Your task to perform on an android device: Go to wifi settings Image 0: 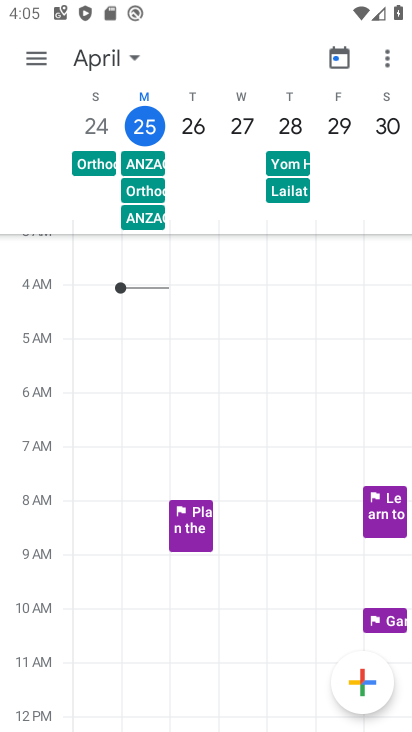
Step 0: press home button
Your task to perform on an android device: Go to wifi settings Image 1: 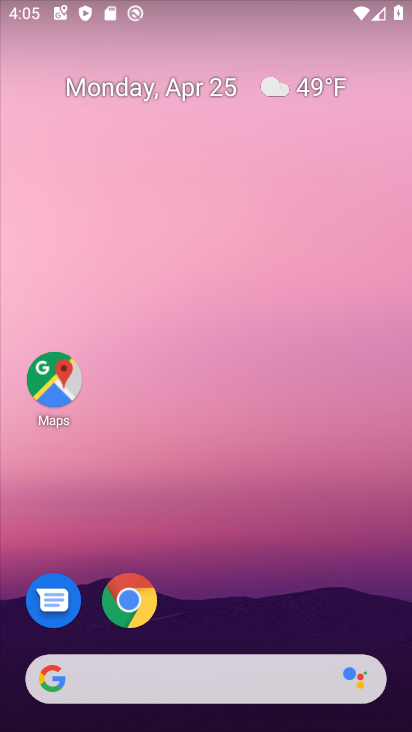
Step 1: drag from (274, 557) to (246, 25)
Your task to perform on an android device: Go to wifi settings Image 2: 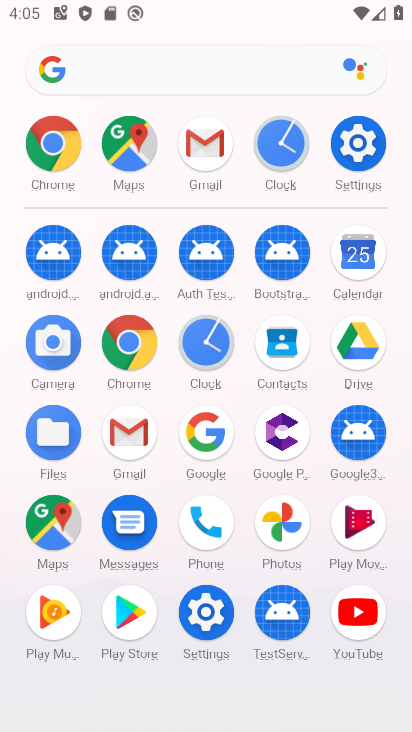
Step 2: click (351, 145)
Your task to perform on an android device: Go to wifi settings Image 3: 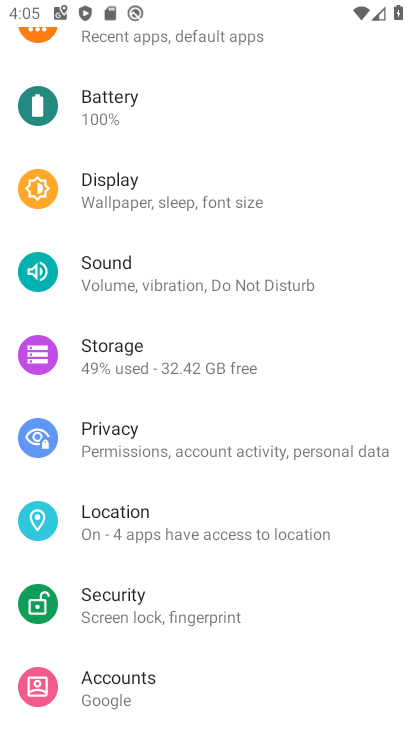
Step 3: drag from (218, 141) to (217, 581)
Your task to perform on an android device: Go to wifi settings Image 4: 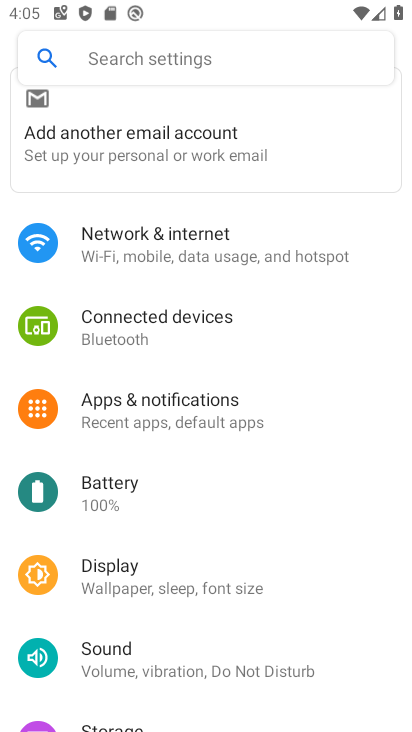
Step 4: click (221, 244)
Your task to perform on an android device: Go to wifi settings Image 5: 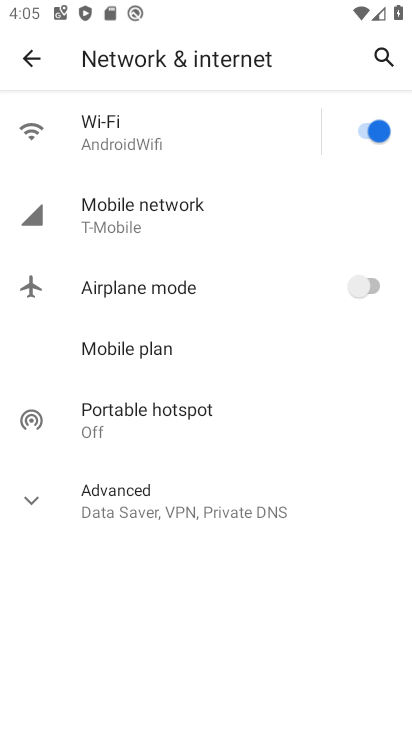
Step 5: click (181, 129)
Your task to perform on an android device: Go to wifi settings Image 6: 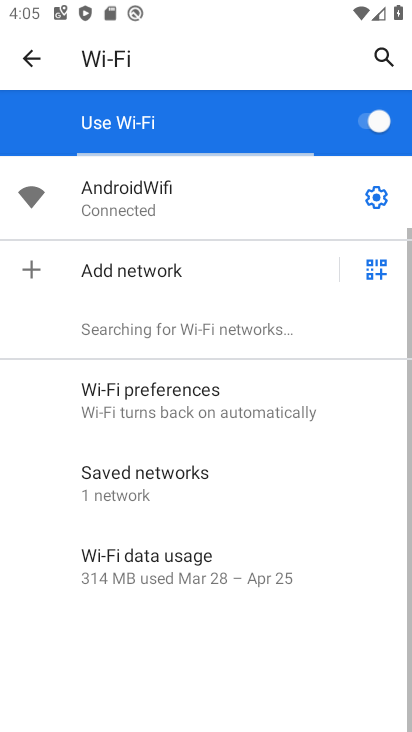
Step 6: task complete